Your task to perform on an android device: What's the weather going to be tomorrow? Image 0: 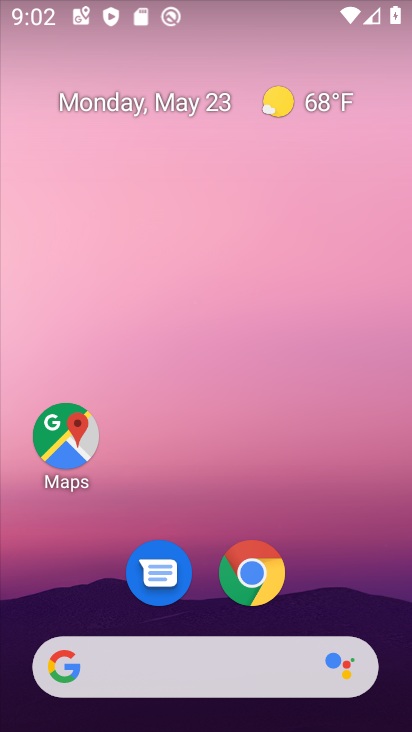
Step 0: drag from (364, 607) to (356, 455)
Your task to perform on an android device: What's the weather going to be tomorrow? Image 1: 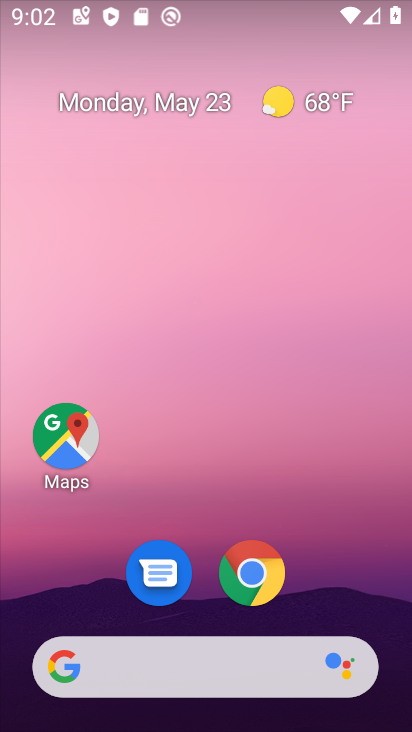
Step 1: drag from (200, 696) to (235, 280)
Your task to perform on an android device: What's the weather going to be tomorrow? Image 2: 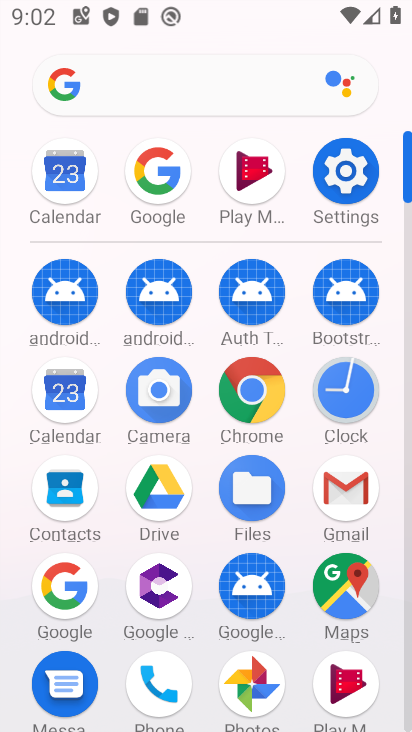
Step 2: click (80, 603)
Your task to perform on an android device: What's the weather going to be tomorrow? Image 3: 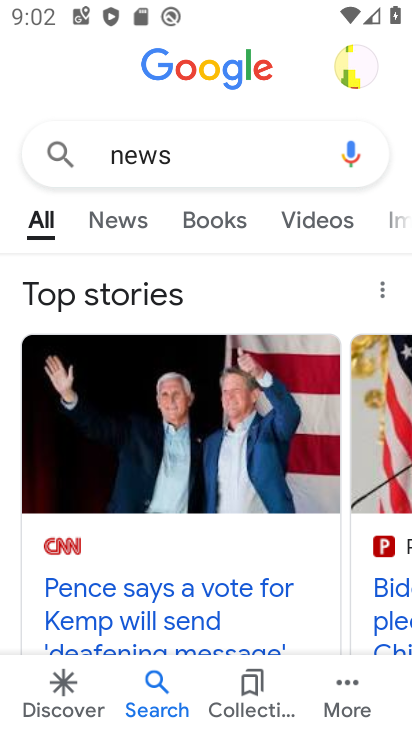
Step 3: click (270, 156)
Your task to perform on an android device: What's the weather going to be tomorrow? Image 4: 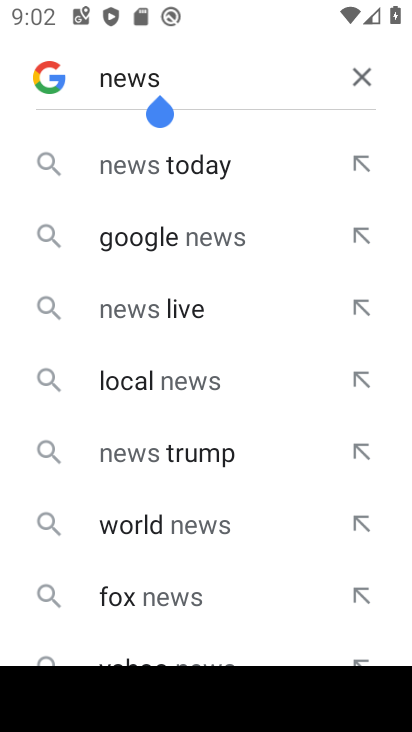
Step 4: click (361, 75)
Your task to perform on an android device: What's the weather going to be tomorrow? Image 5: 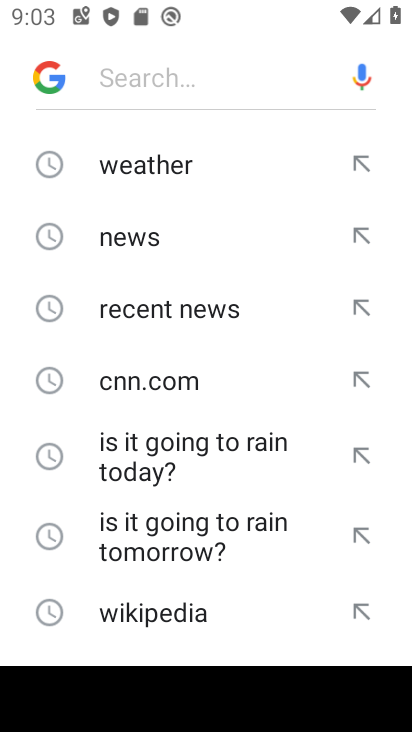
Step 5: click (153, 162)
Your task to perform on an android device: What's the weather going to be tomorrow? Image 6: 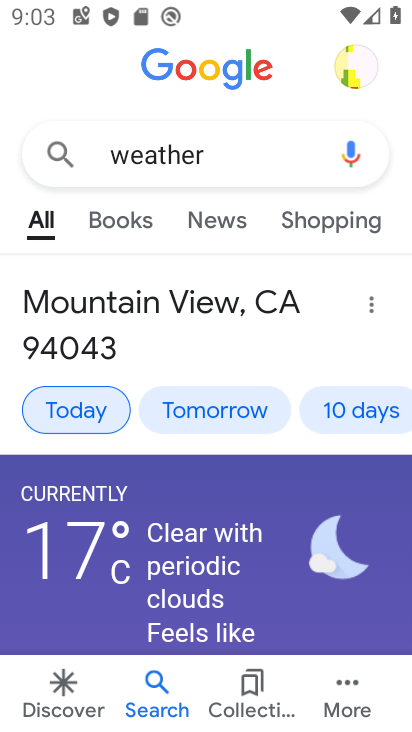
Step 6: click (221, 407)
Your task to perform on an android device: What's the weather going to be tomorrow? Image 7: 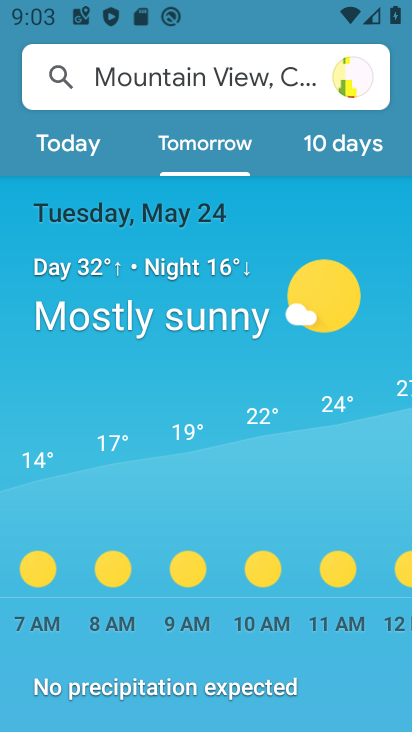
Step 7: task complete